Your task to perform on an android device: Open Amazon Image 0: 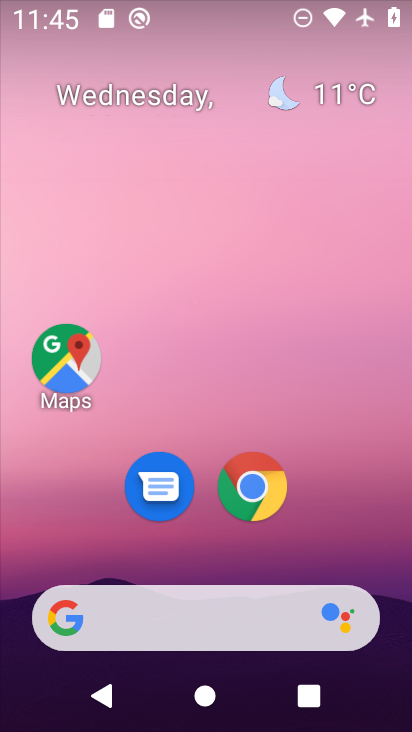
Step 0: drag from (339, 445) to (247, 44)
Your task to perform on an android device: Open Amazon Image 1: 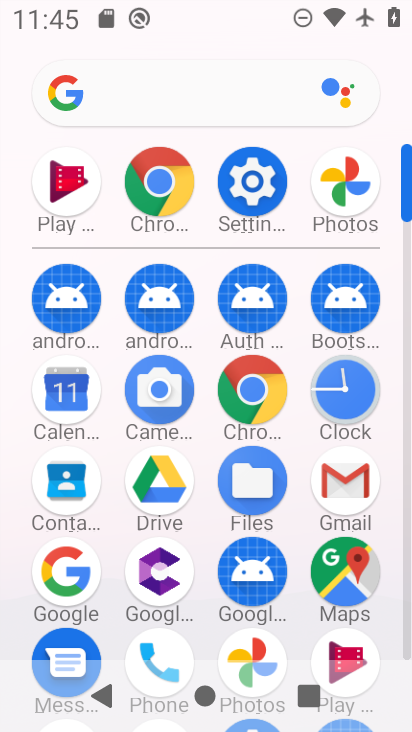
Step 1: click (161, 180)
Your task to perform on an android device: Open Amazon Image 2: 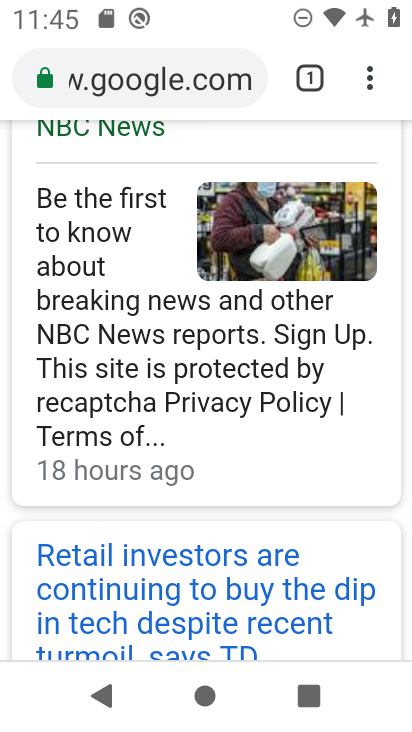
Step 2: click (168, 77)
Your task to perform on an android device: Open Amazon Image 3: 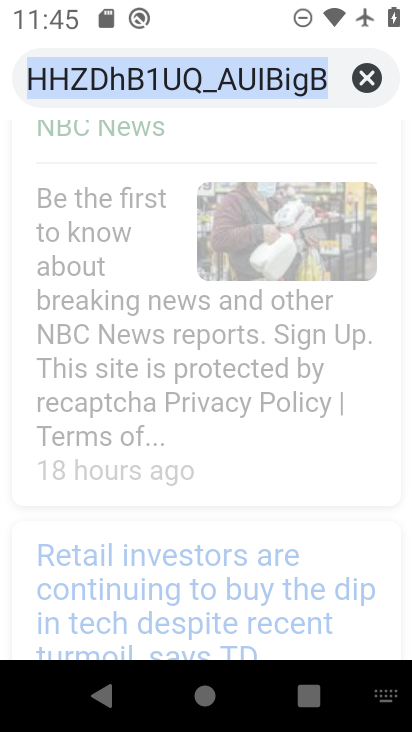
Step 3: click (357, 72)
Your task to perform on an android device: Open Amazon Image 4: 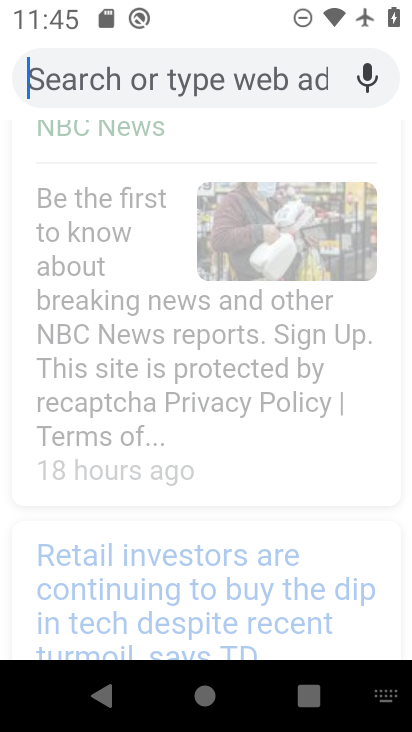
Step 4: type "Amazon"
Your task to perform on an android device: Open Amazon Image 5: 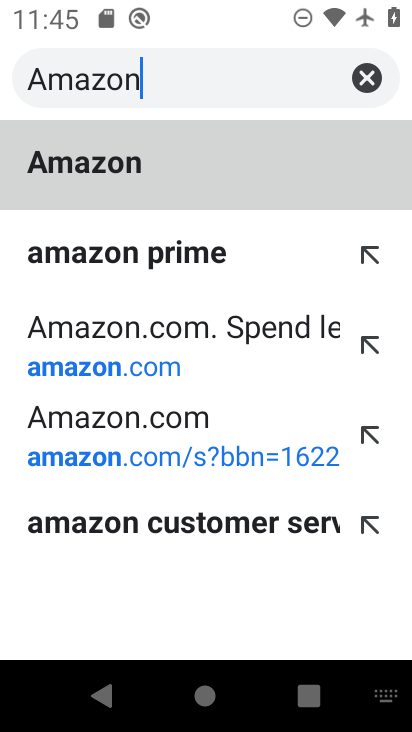
Step 5: type ""
Your task to perform on an android device: Open Amazon Image 6: 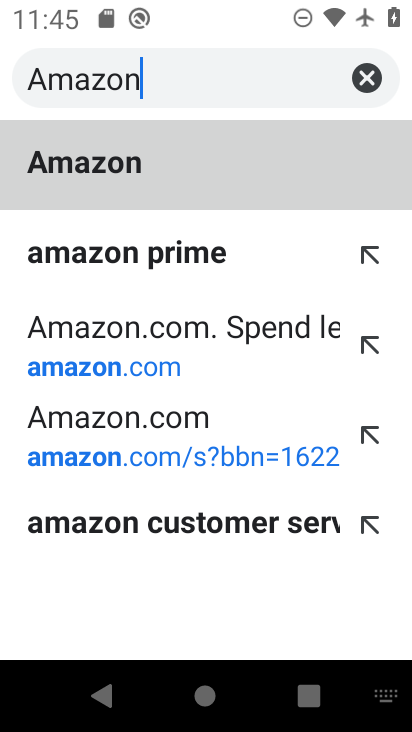
Step 6: click (146, 326)
Your task to perform on an android device: Open Amazon Image 7: 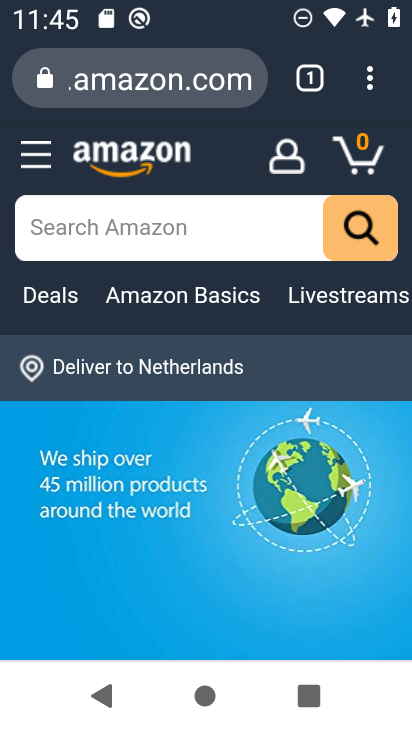
Step 7: task complete